Your task to perform on an android device: snooze an email in the gmail app Image 0: 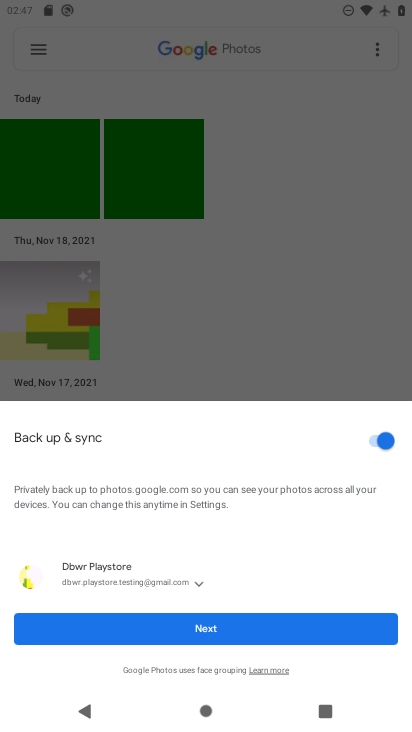
Step 0: press home button
Your task to perform on an android device: snooze an email in the gmail app Image 1: 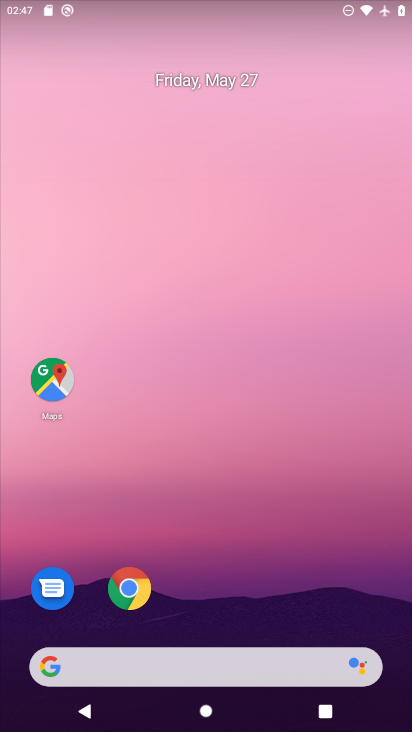
Step 1: drag from (372, 626) to (292, 92)
Your task to perform on an android device: snooze an email in the gmail app Image 2: 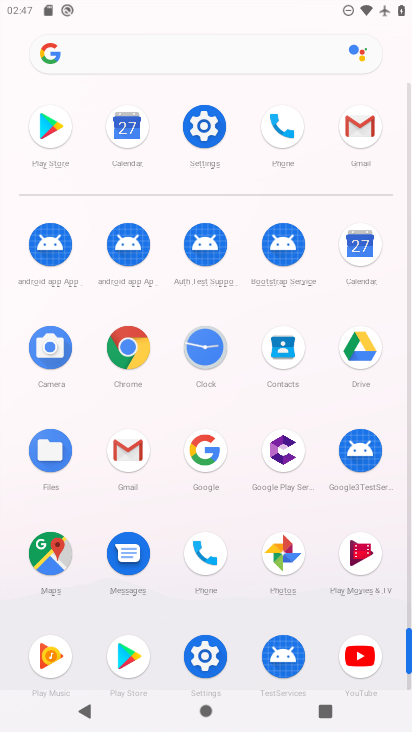
Step 2: click (125, 450)
Your task to perform on an android device: snooze an email in the gmail app Image 3: 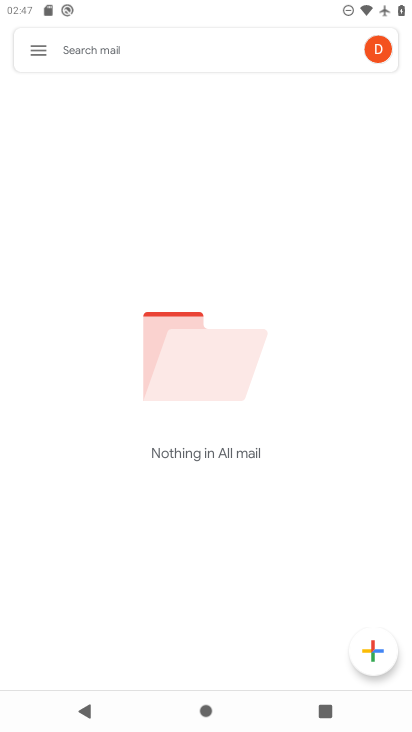
Step 3: click (38, 52)
Your task to perform on an android device: snooze an email in the gmail app Image 4: 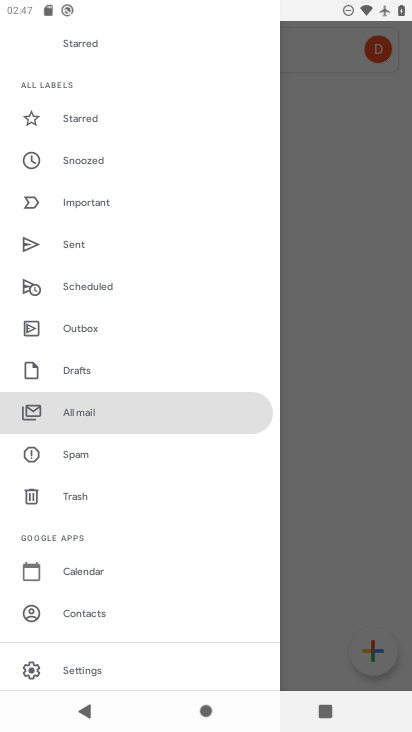
Step 4: click (91, 159)
Your task to perform on an android device: snooze an email in the gmail app Image 5: 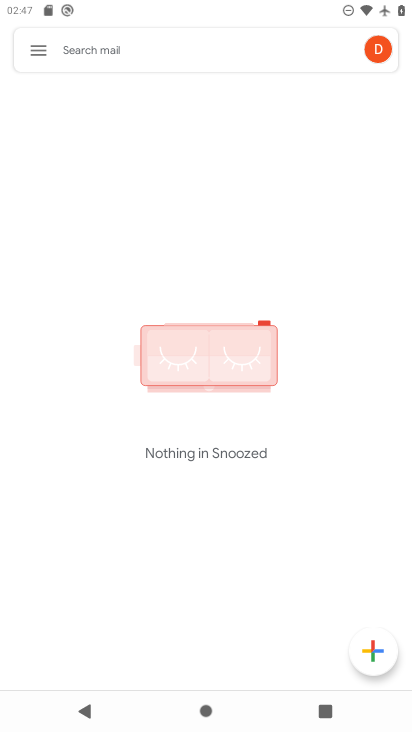
Step 5: task complete